Your task to perform on an android device: Open Chrome and go to the settings page Image 0: 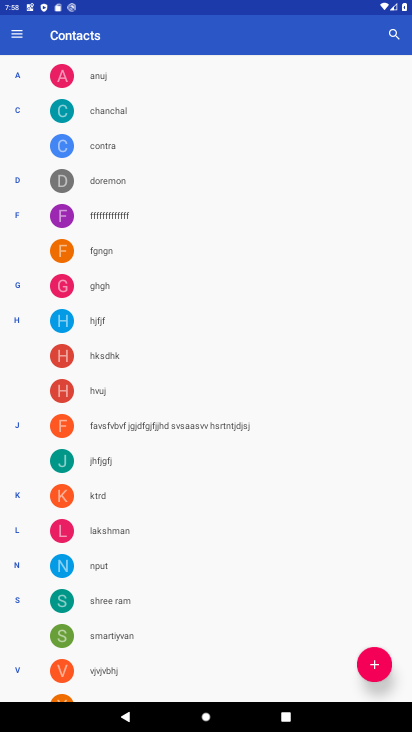
Step 0: press home button
Your task to perform on an android device: Open Chrome and go to the settings page Image 1: 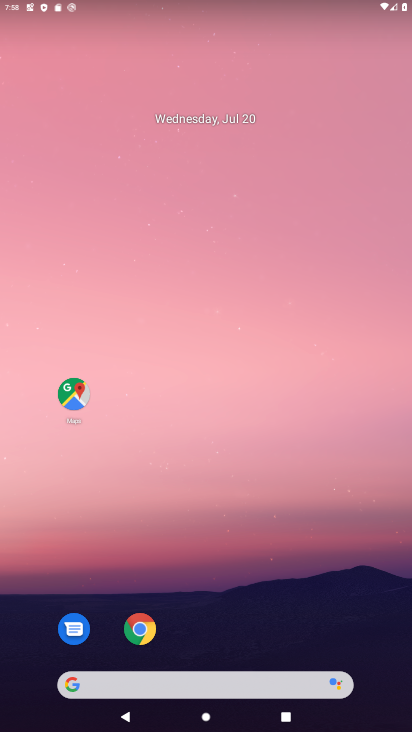
Step 1: click (138, 630)
Your task to perform on an android device: Open Chrome and go to the settings page Image 2: 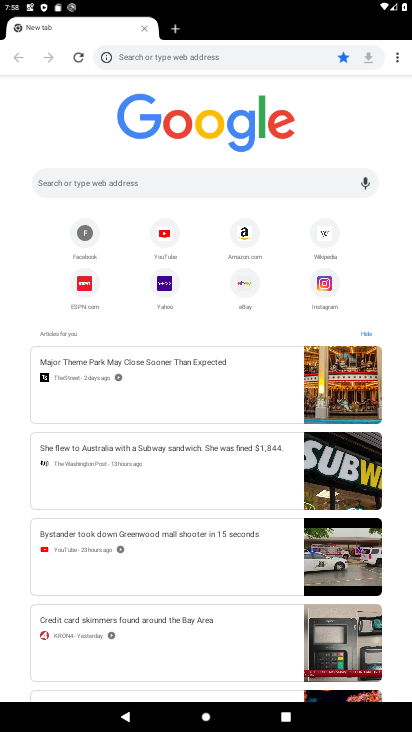
Step 2: click (394, 63)
Your task to perform on an android device: Open Chrome and go to the settings page Image 3: 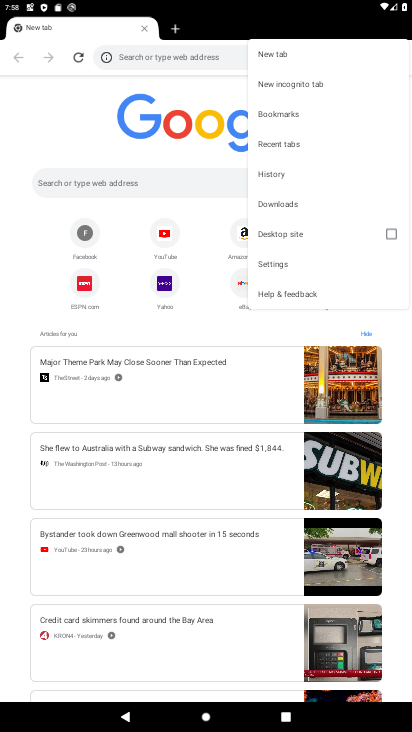
Step 3: click (266, 261)
Your task to perform on an android device: Open Chrome and go to the settings page Image 4: 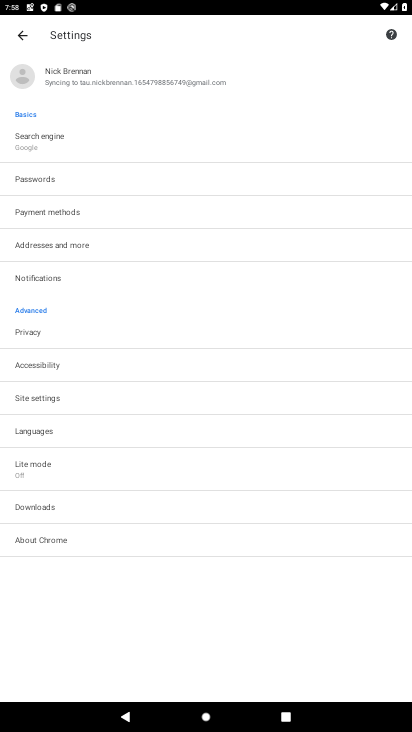
Step 4: task complete